Your task to perform on an android device: turn off airplane mode Image 0: 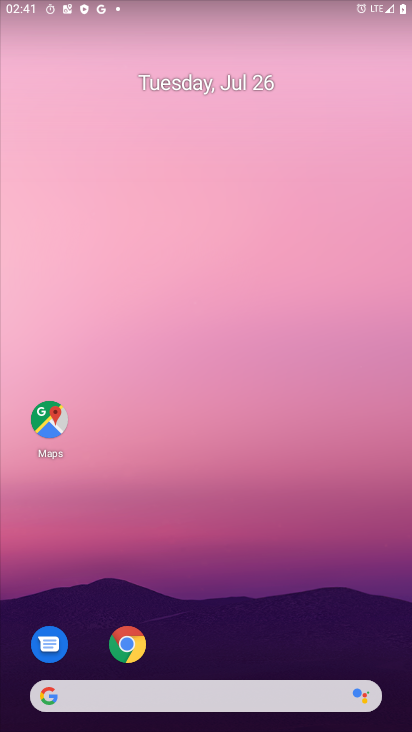
Step 0: drag from (264, 644) to (247, 5)
Your task to perform on an android device: turn off airplane mode Image 1: 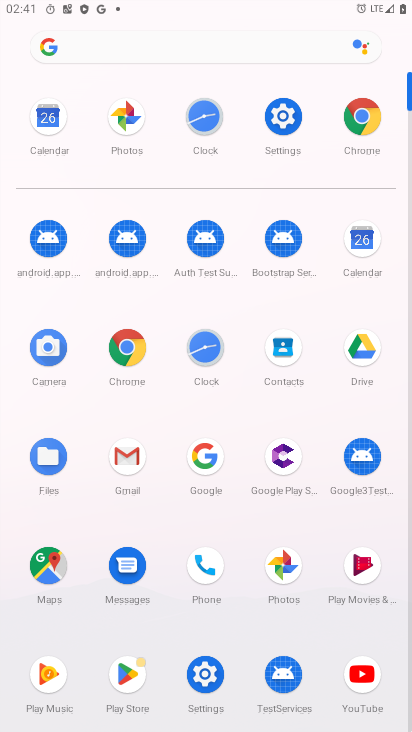
Step 1: click (287, 120)
Your task to perform on an android device: turn off airplane mode Image 2: 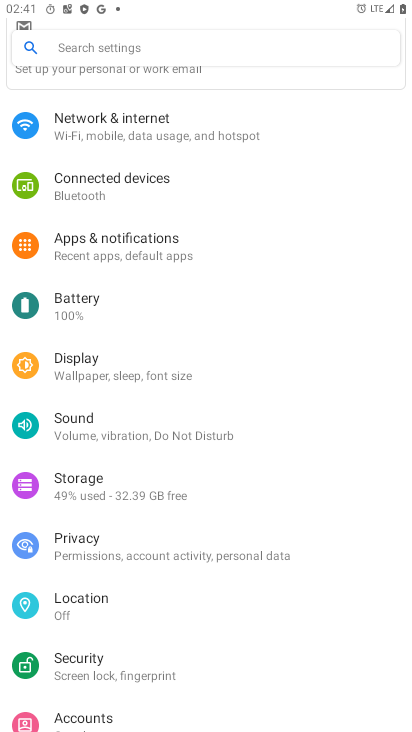
Step 2: click (147, 133)
Your task to perform on an android device: turn off airplane mode Image 3: 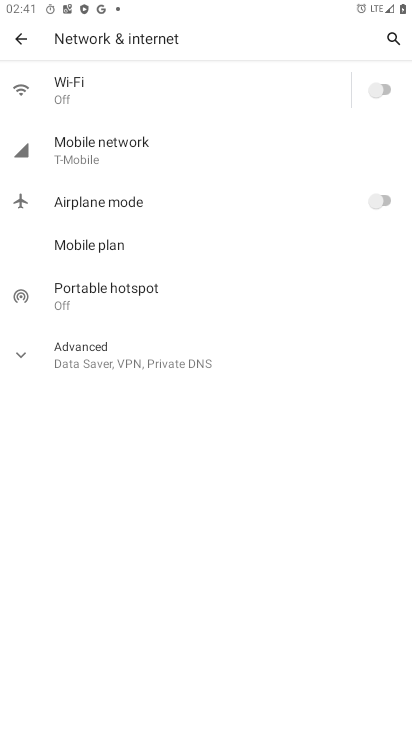
Step 3: task complete